Your task to perform on an android device: Open CNN.com Image 0: 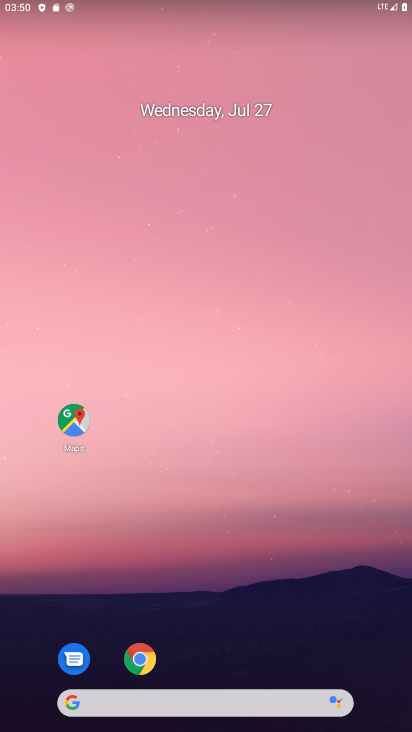
Step 0: click (149, 661)
Your task to perform on an android device: Open CNN.com Image 1: 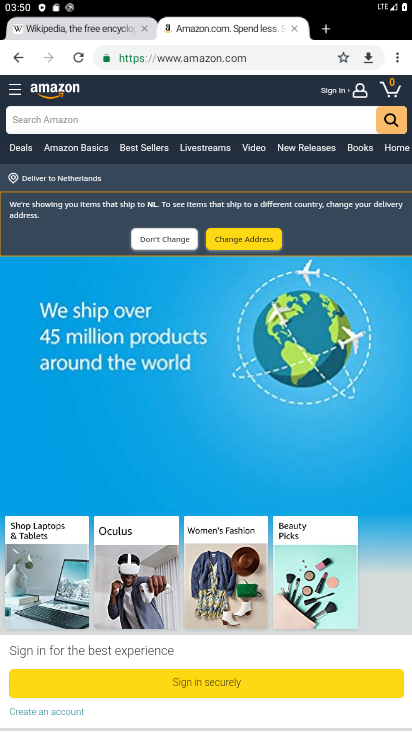
Step 1: click (191, 52)
Your task to perform on an android device: Open CNN.com Image 2: 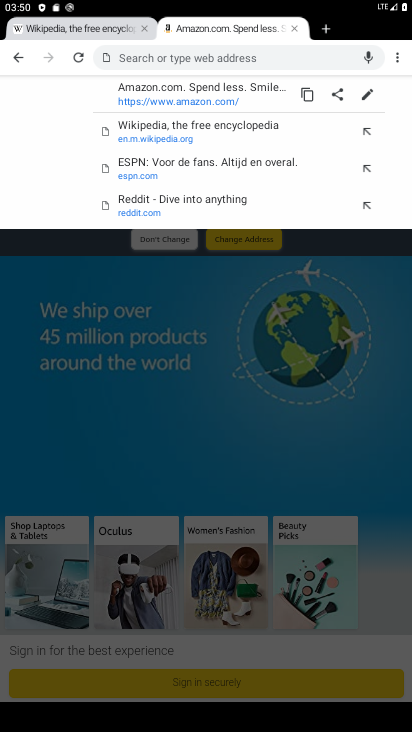
Step 2: type "cnn.com"
Your task to perform on an android device: Open CNN.com Image 3: 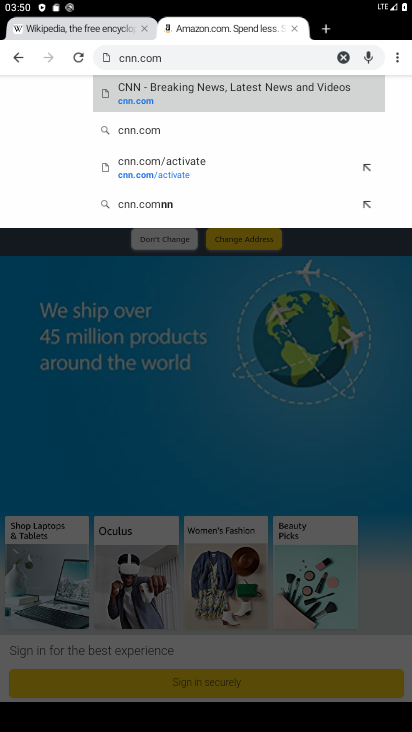
Step 3: click (164, 98)
Your task to perform on an android device: Open CNN.com Image 4: 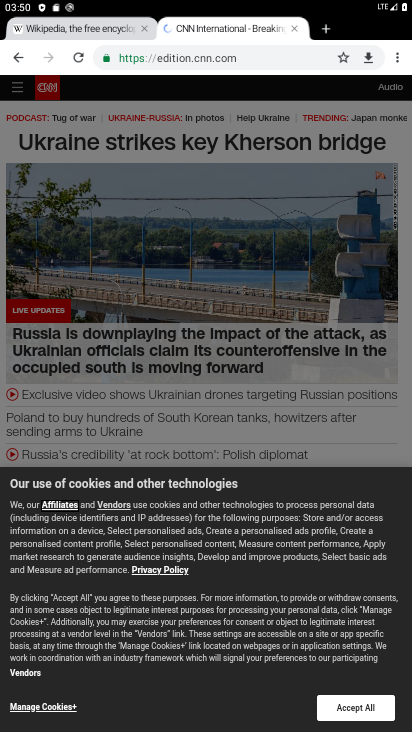
Step 4: task complete